Your task to perform on an android device: move an email to a new category in the gmail app Image 0: 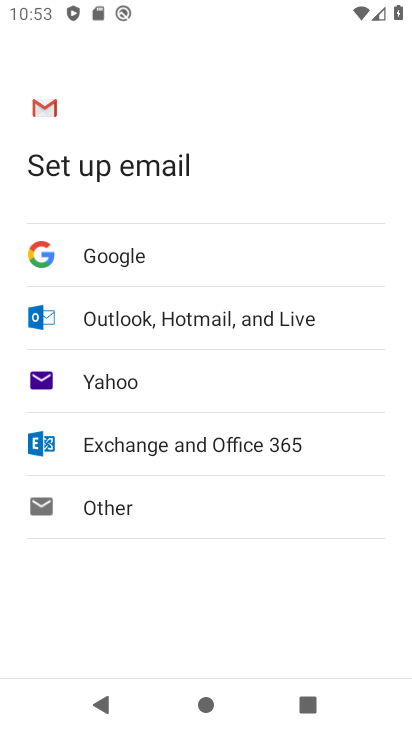
Step 0: press home button
Your task to perform on an android device: move an email to a new category in the gmail app Image 1: 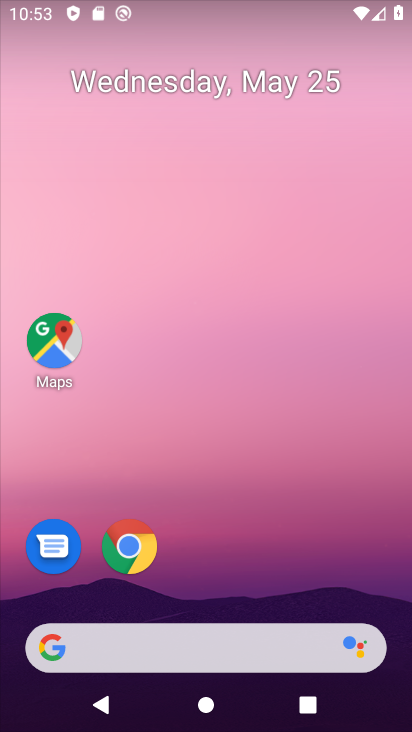
Step 1: drag from (371, 544) to (263, 138)
Your task to perform on an android device: move an email to a new category in the gmail app Image 2: 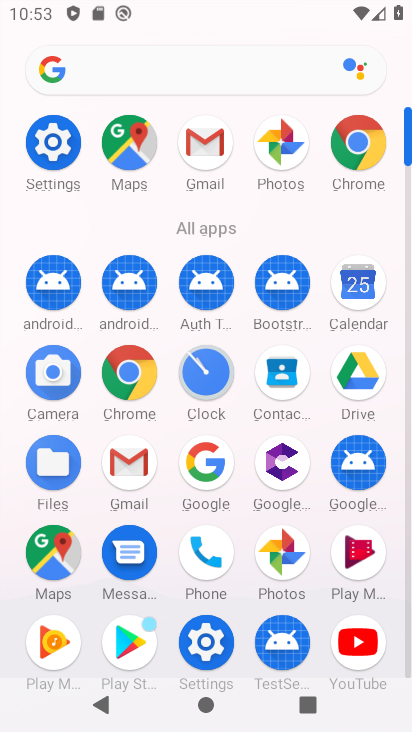
Step 2: click (144, 479)
Your task to perform on an android device: move an email to a new category in the gmail app Image 3: 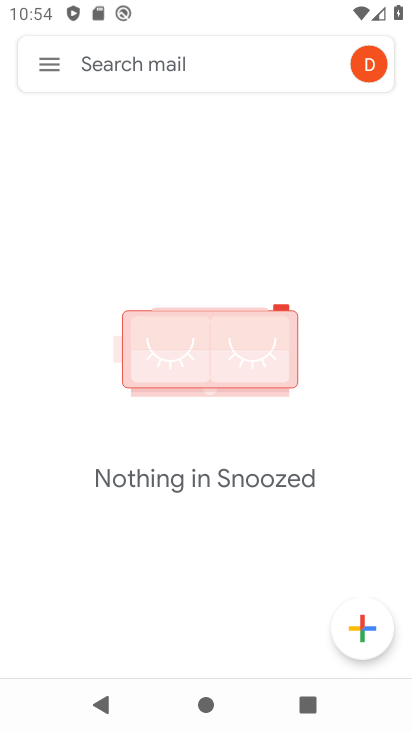
Step 3: click (49, 75)
Your task to perform on an android device: move an email to a new category in the gmail app Image 4: 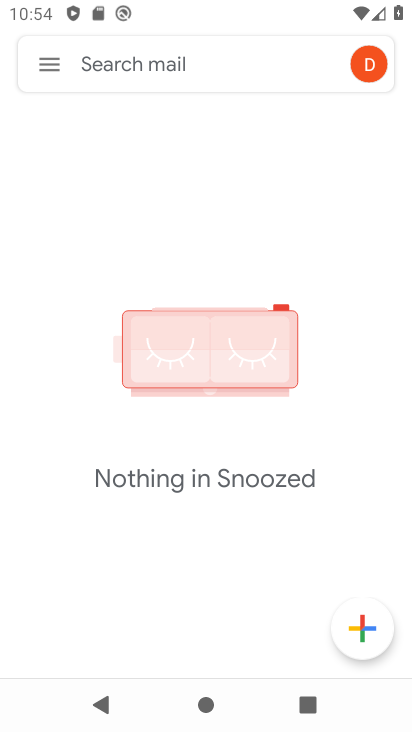
Step 4: click (46, 81)
Your task to perform on an android device: move an email to a new category in the gmail app Image 5: 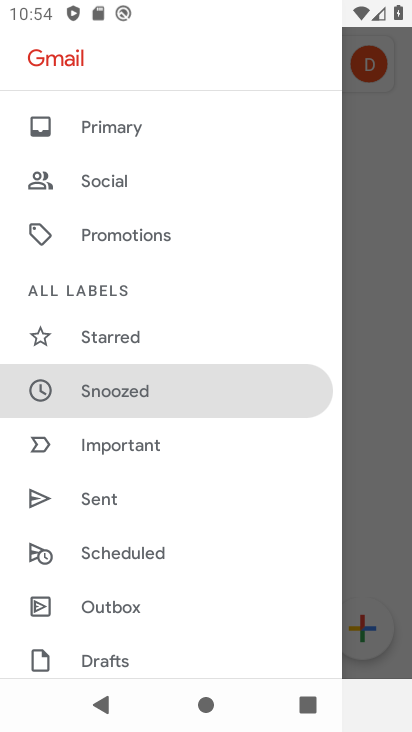
Step 5: drag from (215, 565) to (192, 311)
Your task to perform on an android device: move an email to a new category in the gmail app Image 6: 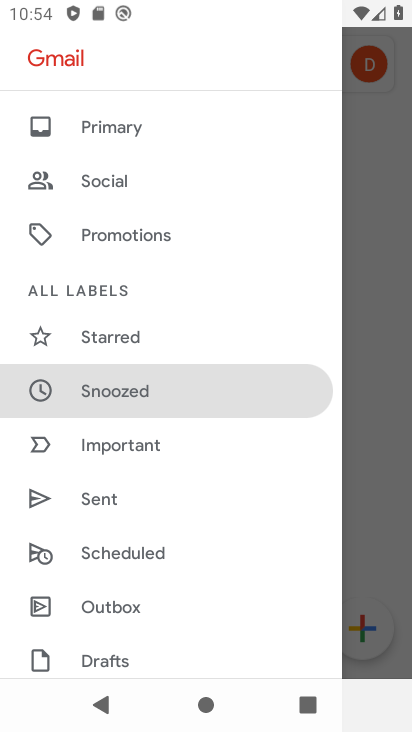
Step 6: drag from (212, 572) to (222, 285)
Your task to perform on an android device: move an email to a new category in the gmail app Image 7: 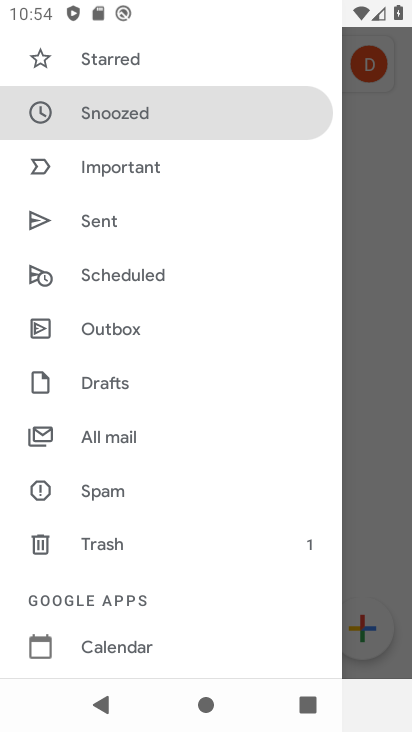
Step 7: drag from (224, 589) to (233, 240)
Your task to perform on an android device: move an email to a new category in the gmail app Image 8: 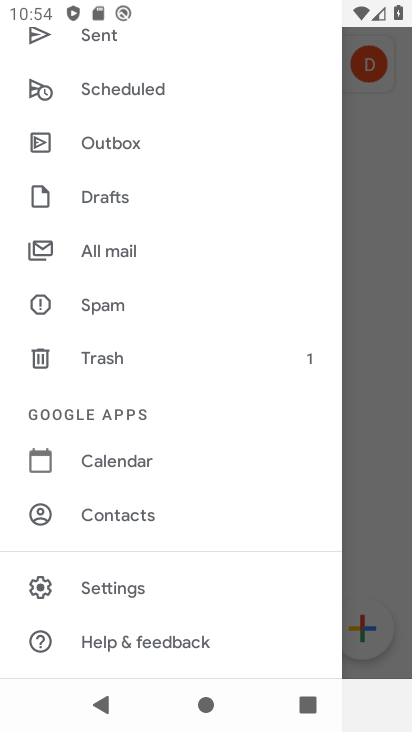
Step 8: click (207, 597)
Your task to perform on an android device: move an email to a new category in the gmail app Image 9: 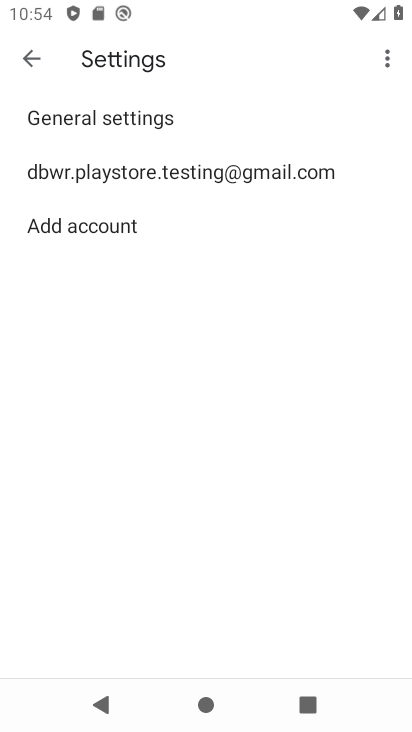
Step 9: click (227, 176)
Your task to perform on an android device: move an email to a new category in the gmail app Image 10: 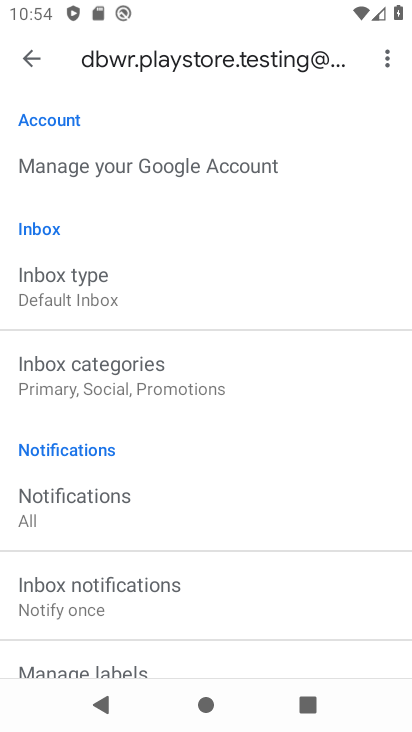
Step 10: click (19, 55)
Your task to perform on an android device: move an email to a new category in the gmail app Image 11: 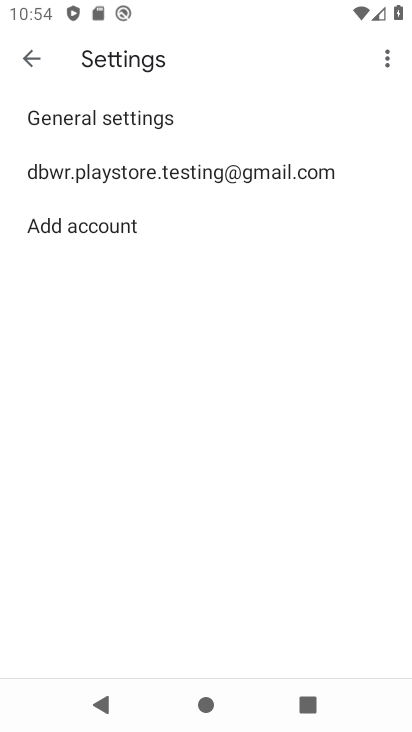
Step 11: click (20, 54)
Your task to perform on an android device: move an email to a new category in the gmail app Image 12: 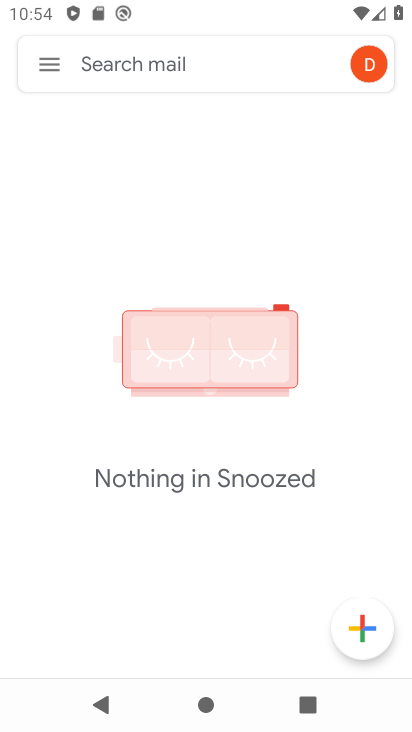
Step 12: click (47, 71)
Your task to perform on an android device: move an email to a new category in the gmail app Image 13: 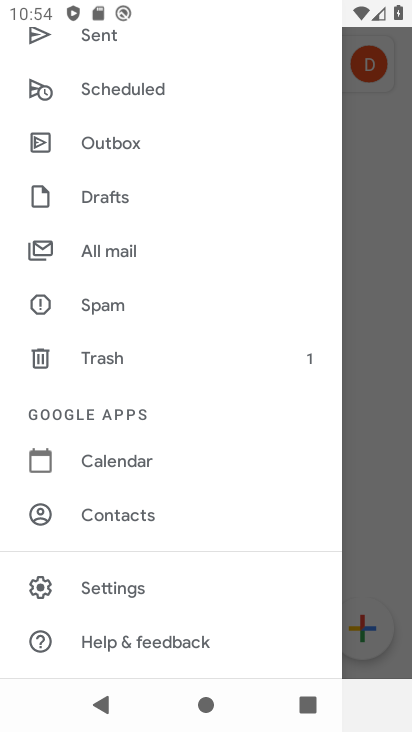
Step 13: click (117, 244)
Your task to perform on an android device: move an email to a new category in the gmail app Image 14: 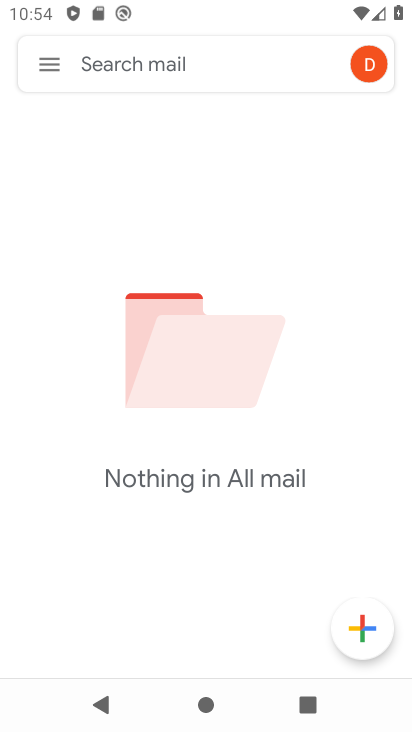
Step 14: task complete